Your task to perform on an android device: Open privacy settings Image 0: 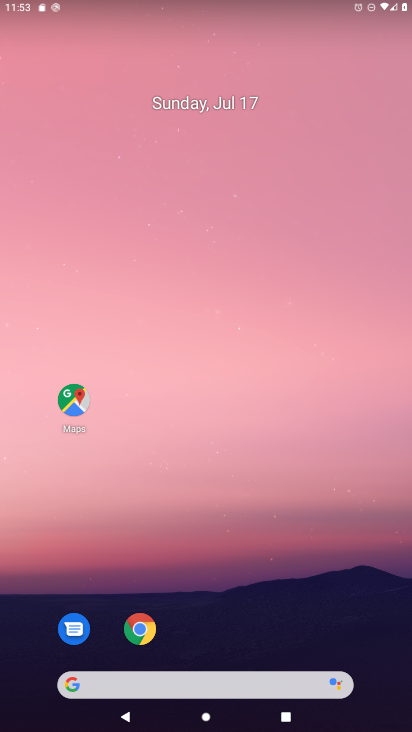
Step 0: drag from (212, 680) to (268, 158)
Your task to perform on an android device: Open privacy settings Image 1: 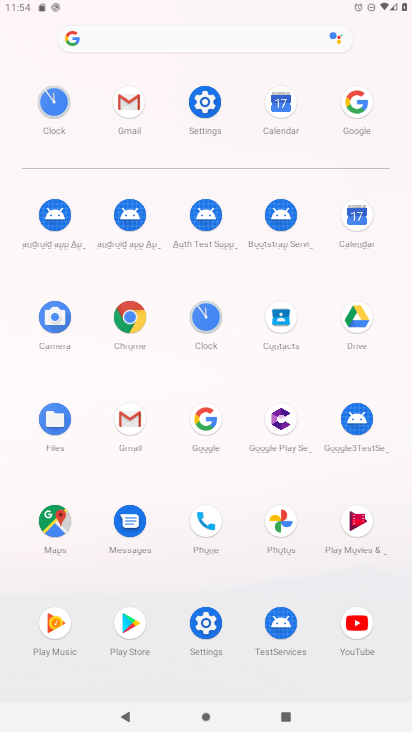
Step 1: click (204, 102)
Your task to perform on an android device: Open privacy settings Image 2: 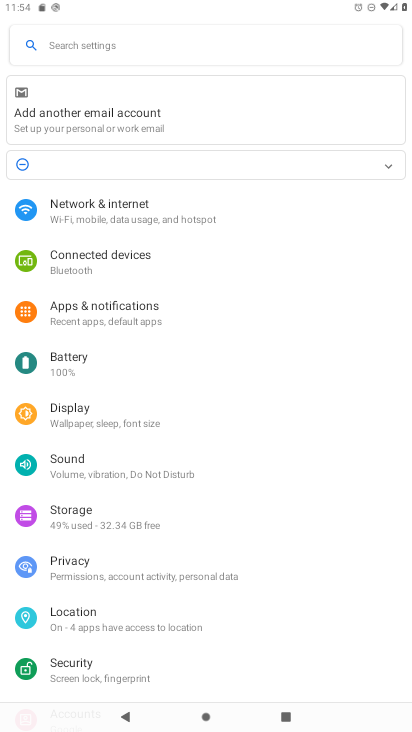
Step 2: click (57, 576)
Your task to perform on an android device: Open privacy settings Image 3: 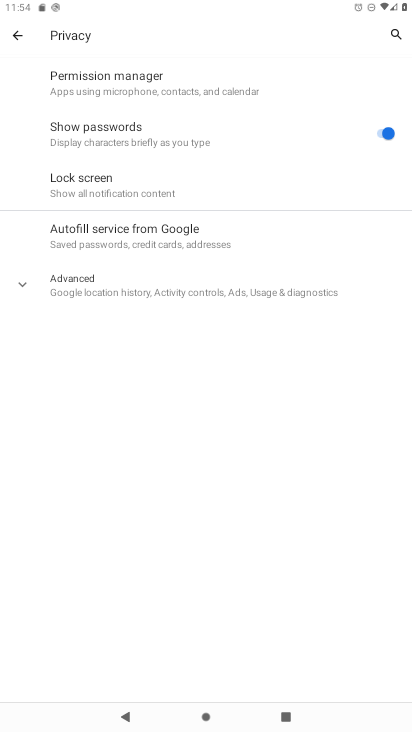
Step 3: task complete